Your task to perform on an android device: Open the Play Movies app and select the watchlist tab. Image 0: 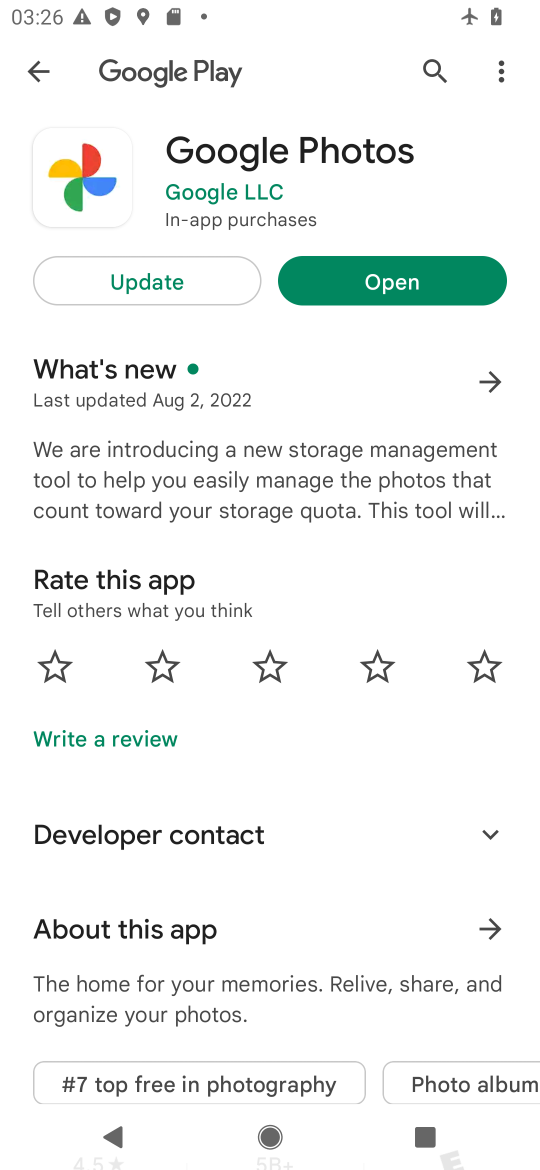
Step 0: press home button
Your task to perform on an android device: Open the Play Movies app and select the watchlist tab. Image 1: 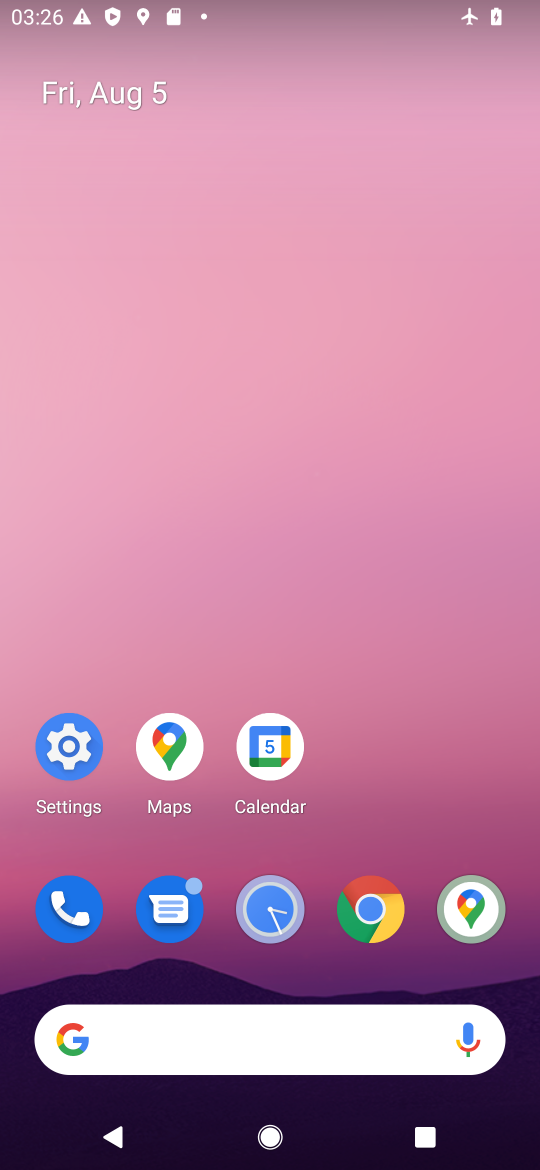
Step 1: task complete